Your task to perform on an android device: Go to Google Image 0: 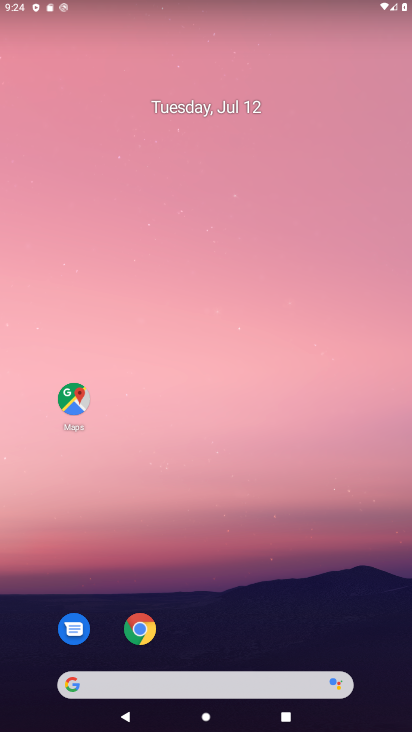
Step 0: drag from (200, 659) to (302, 130)
Your task to perform on an android device: Go to Google Image 1: 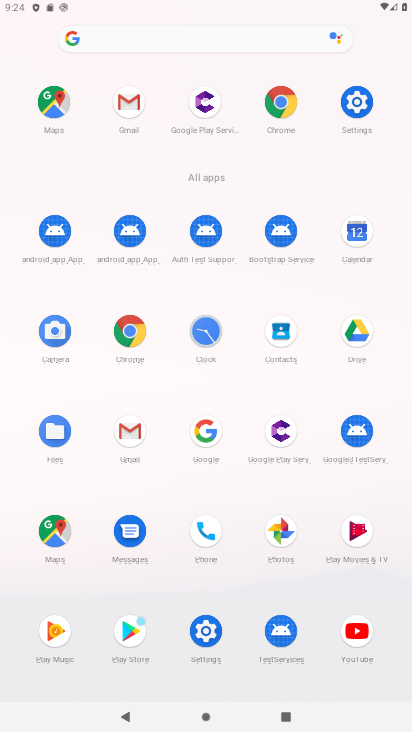
Step 1: click (213, 436)
Your task to perform on an android device: Go to Google Image 2: 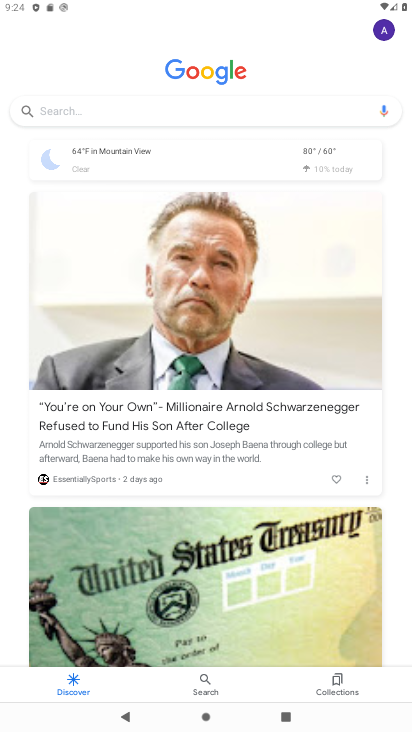
Step 2: task complete